Your task to perform on an android device: Go to wifi settings Image 0: 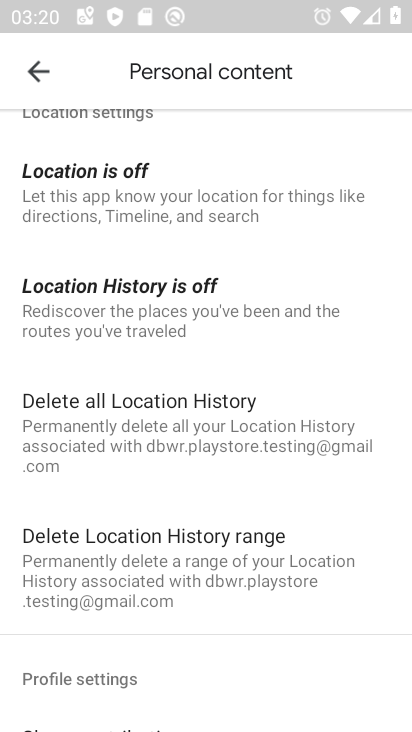
Step 0: press home button
Your task to perform on an android device: Go to wifi settings Image 1: 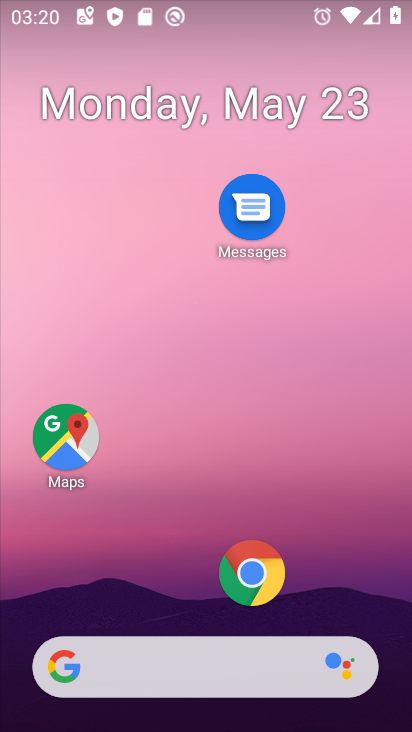
Step 1: drag from (267, 579) to (285, 7)
Your task to perform on an android device: Go to wifi settings Image 2: 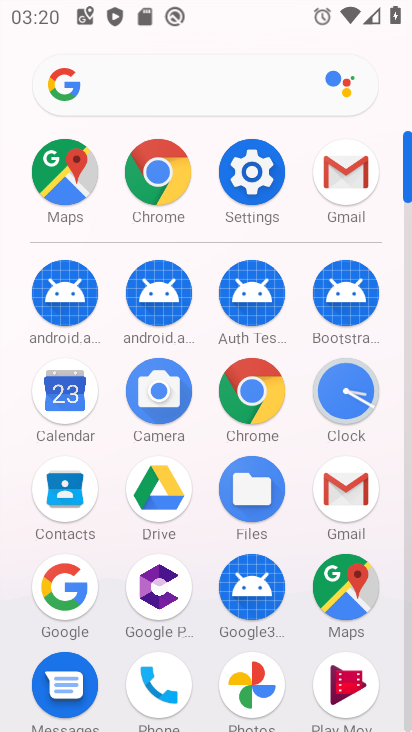
Step 2: click (265, 182)
Your task to perform on an android device: Go to wifi settings Image 3: 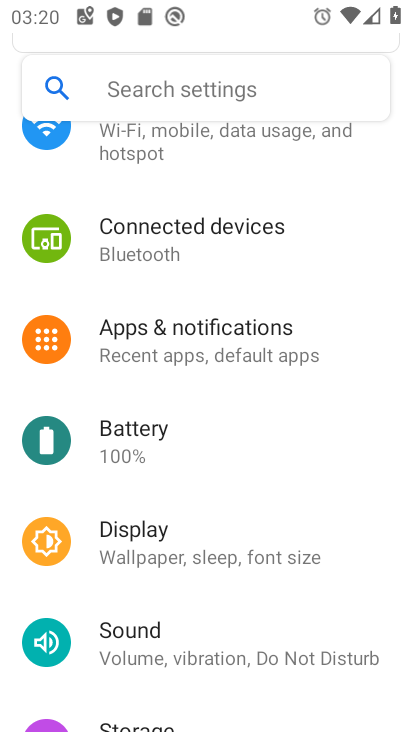
Step 3: click (214, 148)
Your task to perform on an android device: Go to wifi settings Image 4: 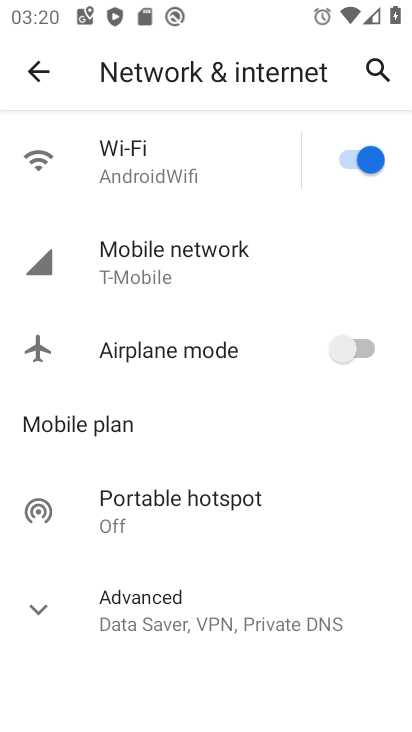
Step 4: click (190, 170)
Your task to perform on an android device: Go to wifi settings Image 5: 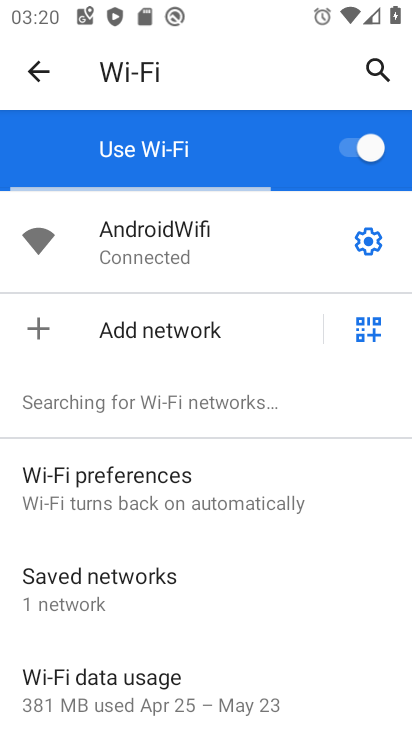
Step 5: task complete